Your task to perform on an android device: toggle airplane mode Image 0: 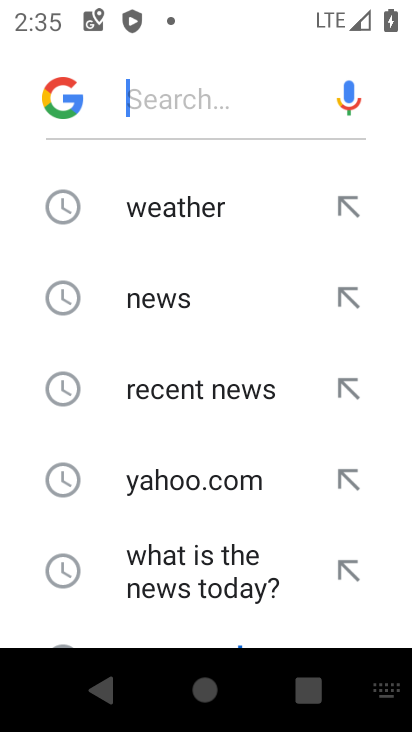
Step 0: press home button
Your task to perform on an android device: toggle airplane mode Image 1: 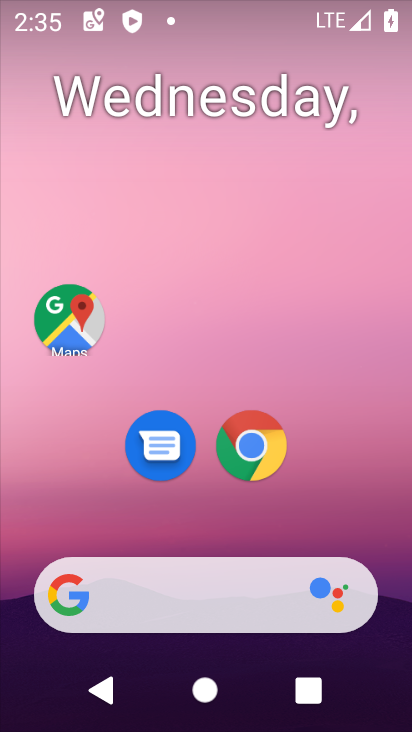
Step 1: drag from (216, 533) to (224, 115)
Your task to perform on an android device: toggle airplane mode Image 2: 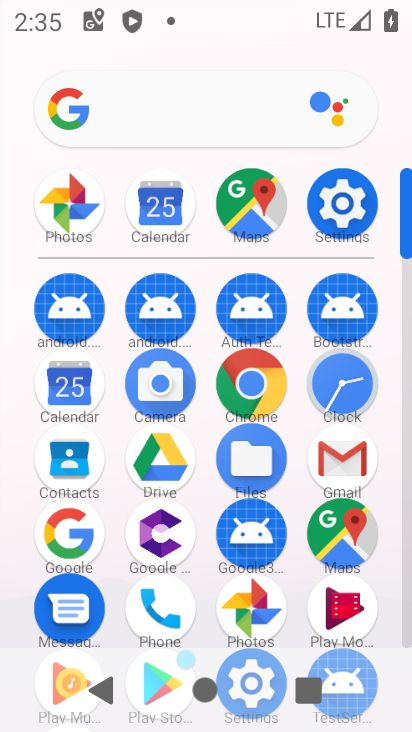
Step 2: click (319, 190)
Your task to perform on an android device: toggle airplane mode Image 3: 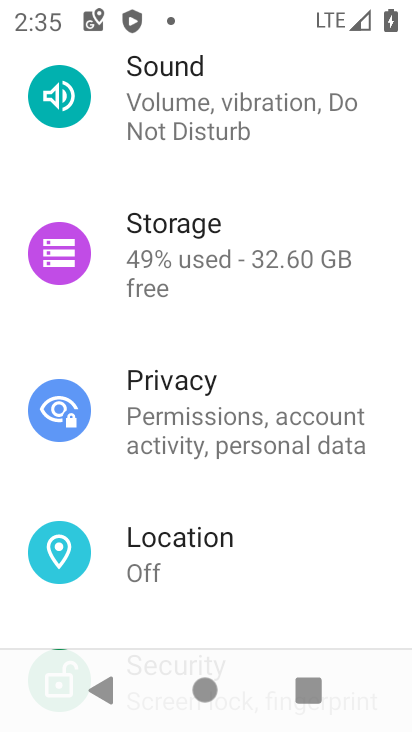
Step 3: drag from (291, 199) to (309, 465)
Your task to perform on an android device: toggle airplane mode Image 4: 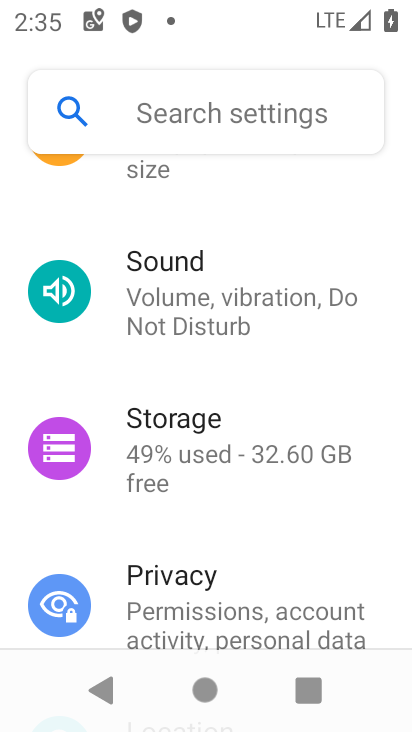
Step 4: drag from (262, 245) to (262, 501)
Your task to perform on an android device: toggle airplane mode Image 5: 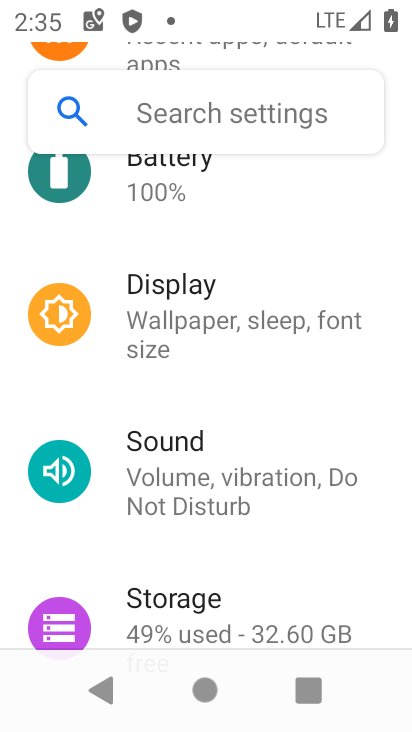
Step 5: drag from (222, 248) to (227, 545)
Your task to perform on an android device: toggle airplane mode Image 6: 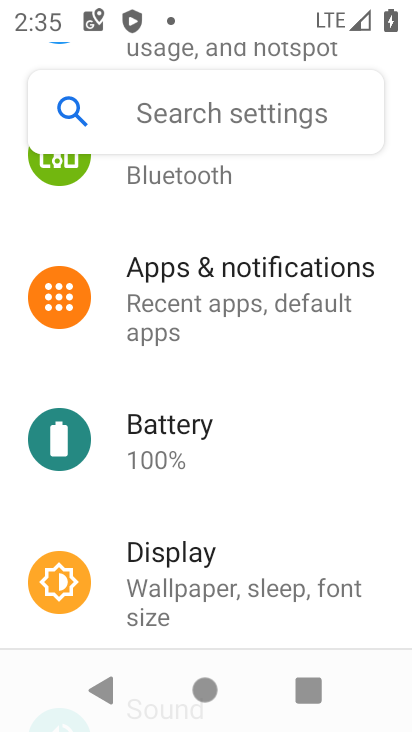
Step 6: drag from (283, 243) to (289, 427)
Your task to perform on an android device: toggle airplane mode Image 7: 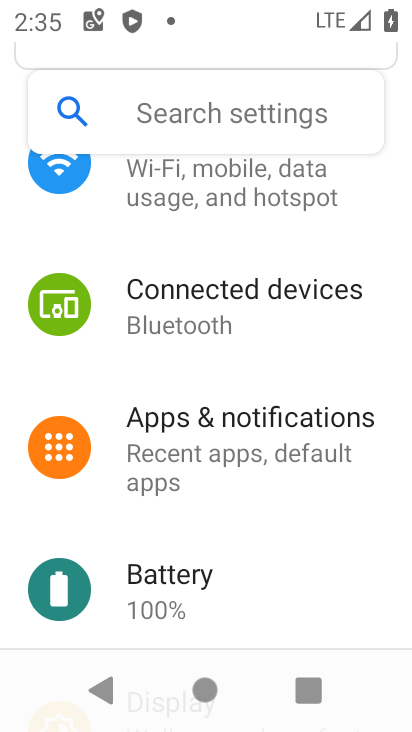
Step 7: drag from (267, 249) to (270, 454)
Your task to perform on an android device: toggle airplane mode Image 8: 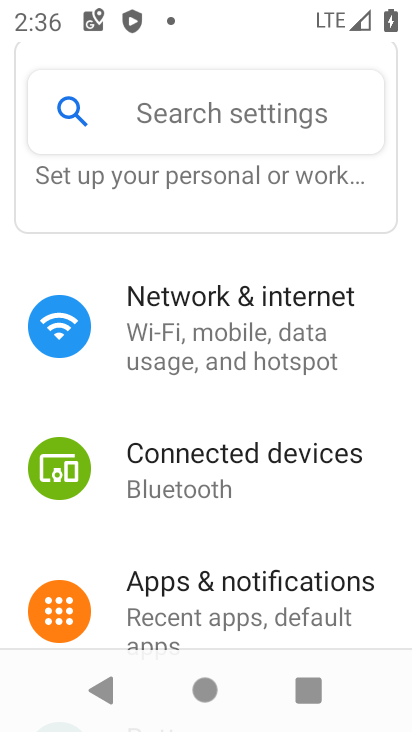
Step 8: click (256, 334)
Your task to perform on an android device: toggle airplane mode Image 9: 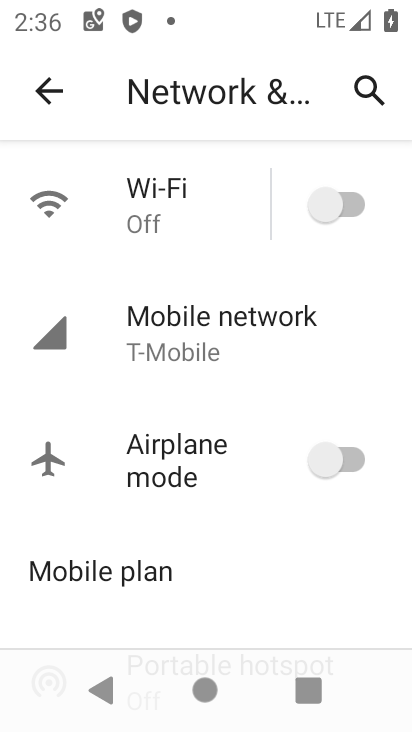
Step 9: click (340, 457)
Your task to perform on an android device: toggle airplane mode Image 10: 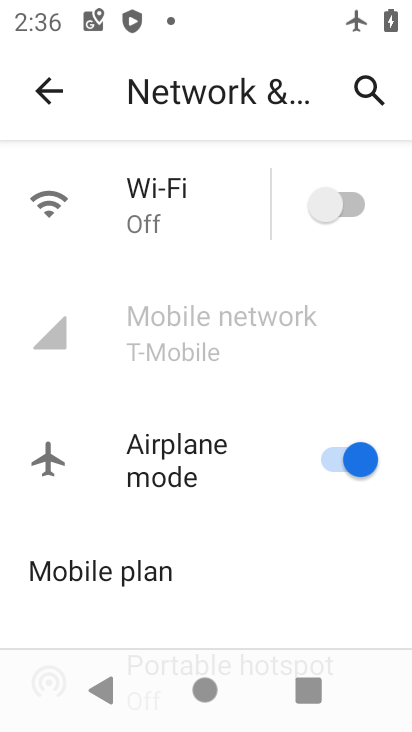
Step 10: task complete